Your task to perform on an android device: stop showing notifications on the lock screen Image 0: 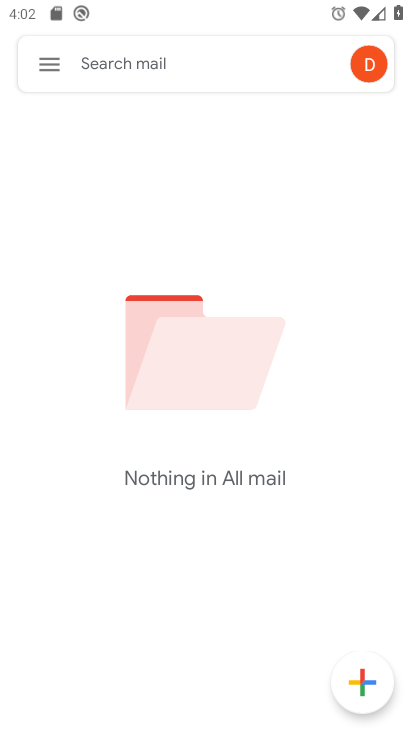
Step 0: press home button
Your task to perform on an android device: stop showing notifications on the lock screen Image 1: 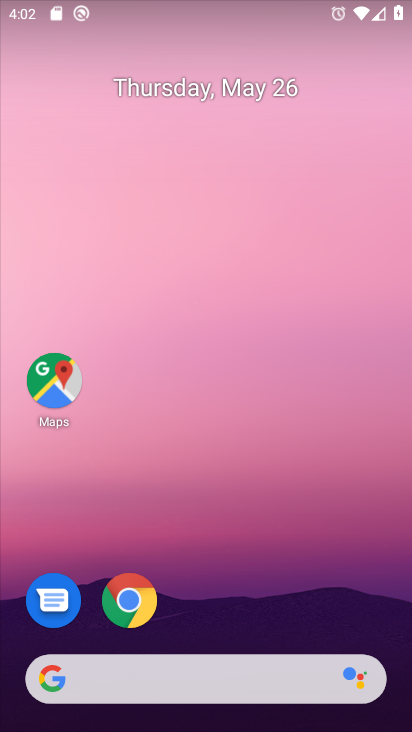
Step 1: drag from (218, 616) to (253, 138)
Your task to perform on an android device: stop showing notifications on the lock screen Image 2: 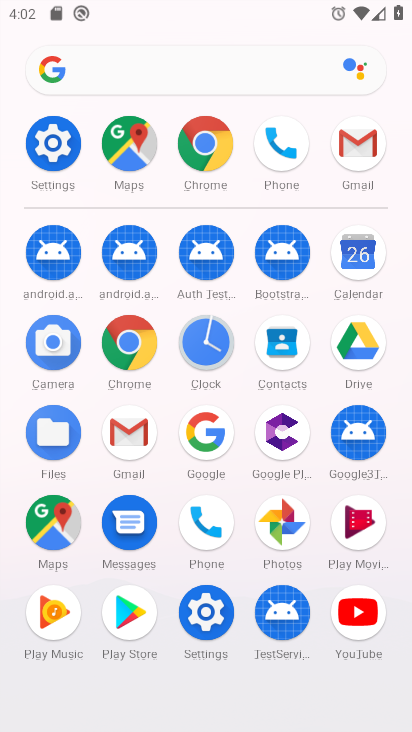
Step 2: click (65, 156)
Your task to perform on an android device: stop showing notifications on the lock screen Image 3: 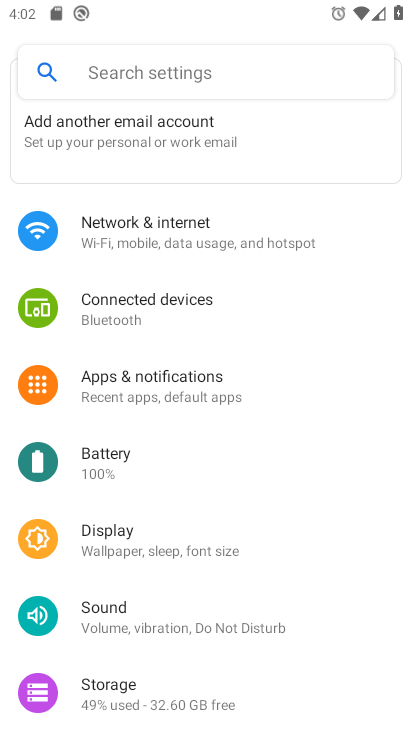
Step 3: click (204, 384)
Your task to perform on an android device: stop showing notifications on the lock screen Image 4: 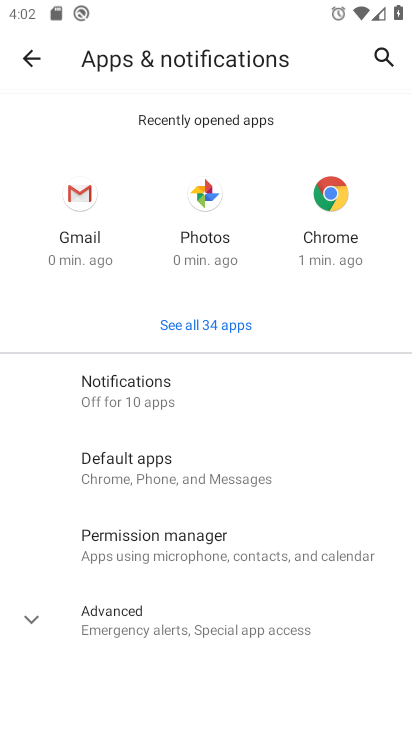
Step 4: click (167, 398)
Your task to perform on an android device: stop showing notifications on the lock screen Image 5: 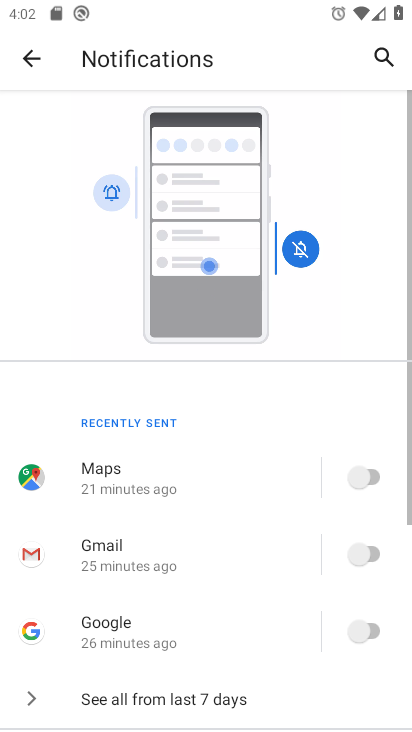
Step 5: drag from (160, 583) to (235, 252)
Your task to perform on an android device: stop showing notifications on the lock screen Image 6: 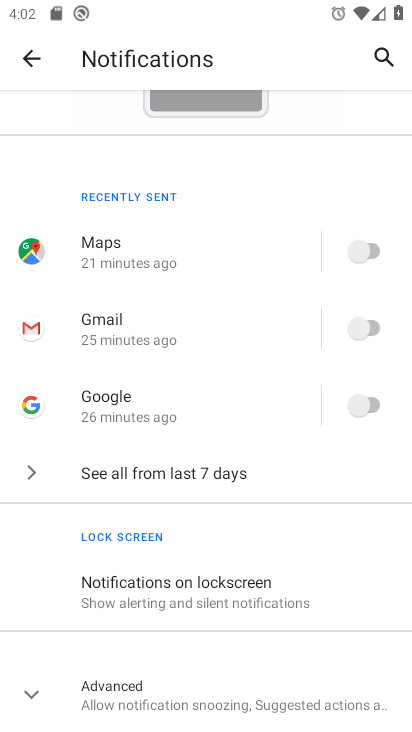
Step 6: click (156, 604)
Your task to perform on an android device: stop showing notifications on the lock screen Image 7: 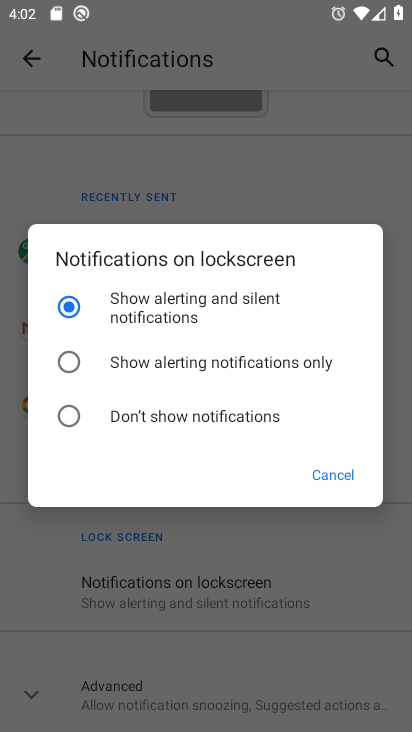
Step 7: click (170, 410)
Your task to perform on an android device: stop showing notifications on the lock screen Image 8: 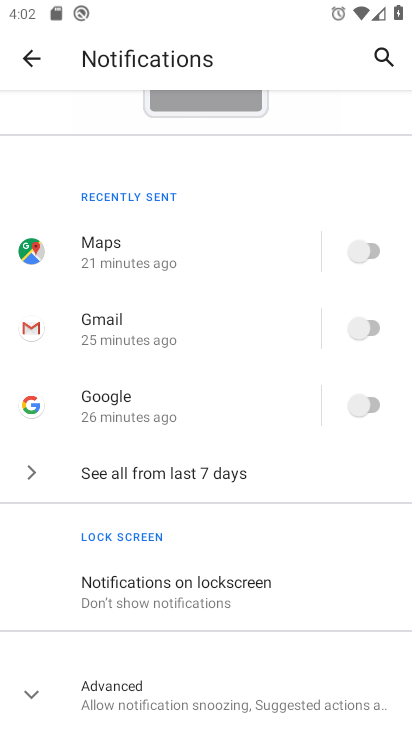
Step 8: task complete